Your task to perform on an android device: Open display settings Image 0: 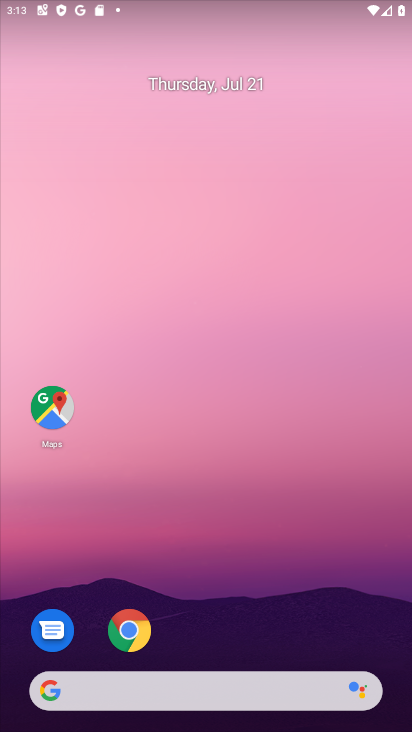
Step 0: drag from (281, 575) to (233, 57)
Your task to perform on an android device: Open display settings Image 1: 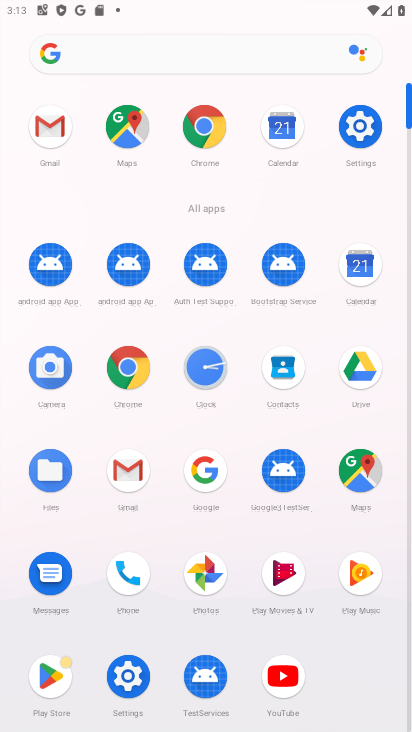
Step 1: click (355, 138)
Your task to perform on an android device: Open display settings Image 2: 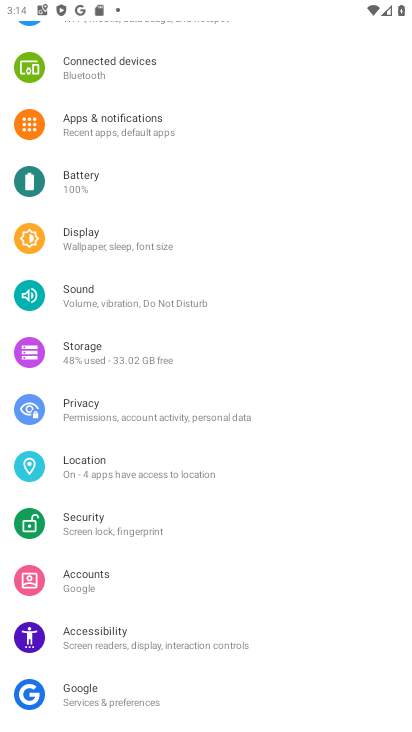
Step 2: click (102, 242)
Your task to perform on an android device: Open display settings Image 3: 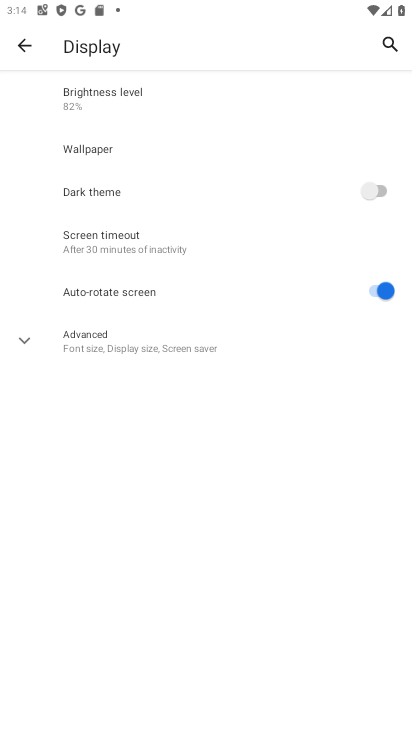
Step 3: task complete